Your task to perform on an android device: turn off picture-in-picture Image 0: 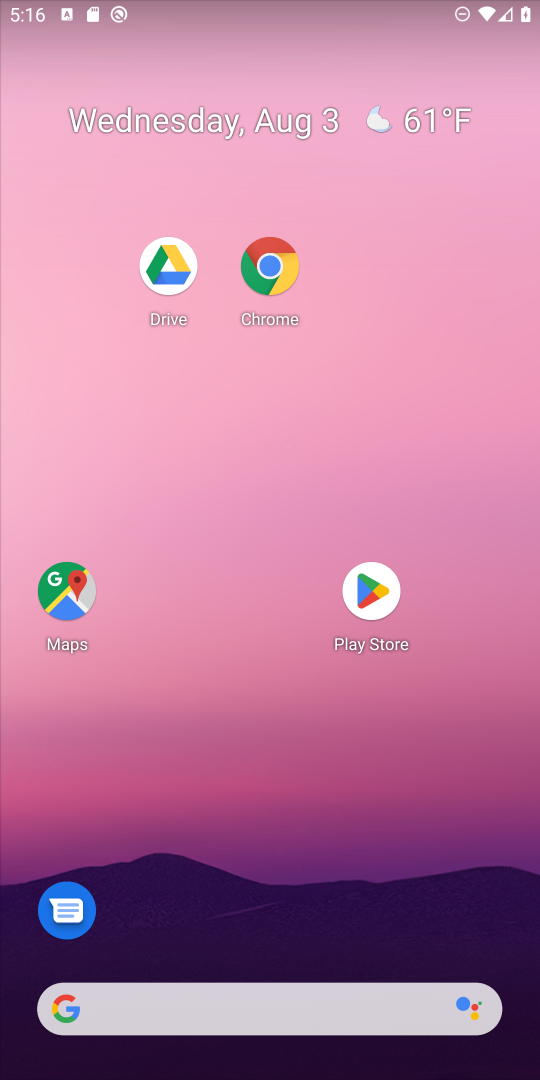
Step 0: drag from (358, 359) to (365, 66)
Your task to perform on an android device: turn off picture-in-picture Image 1: 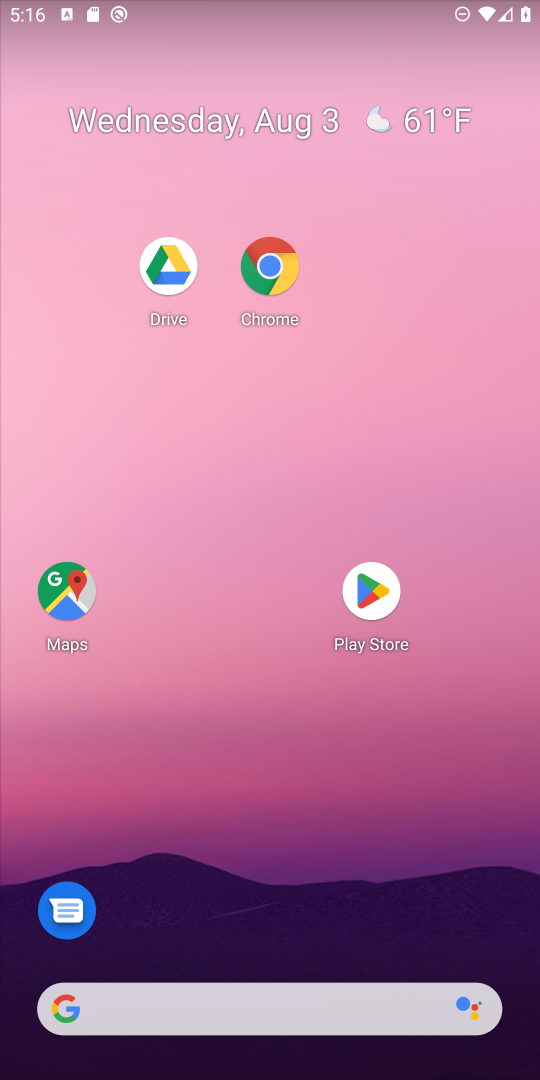
Step 1: drag from (303, 847) to (400, 11)
Your task to perform on an android device: turn off picture-in-picture Image 2: 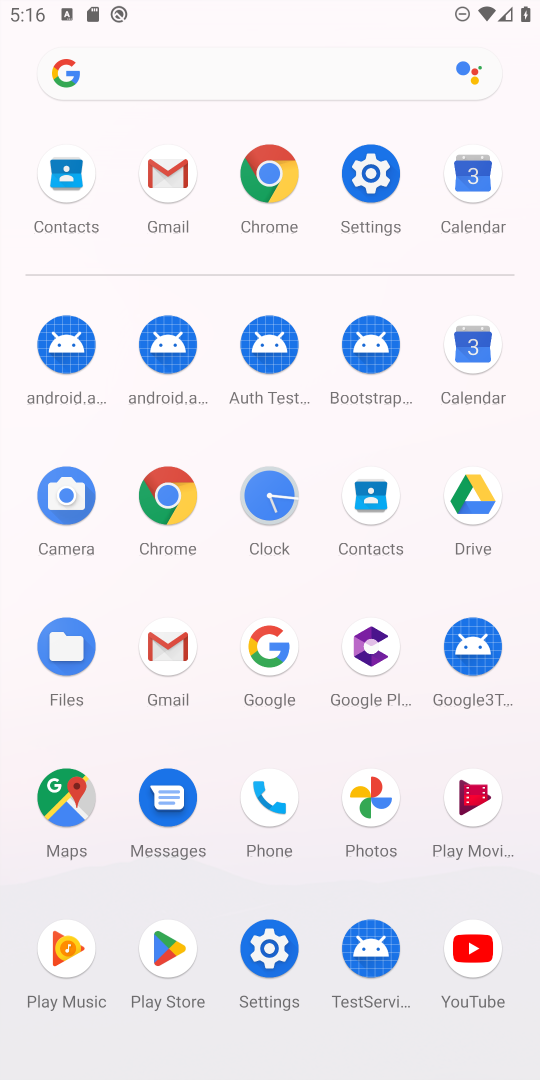
Step 2: click (358, 166)
Your task to perform on an android device: turn off picture-in-picture Image 3: 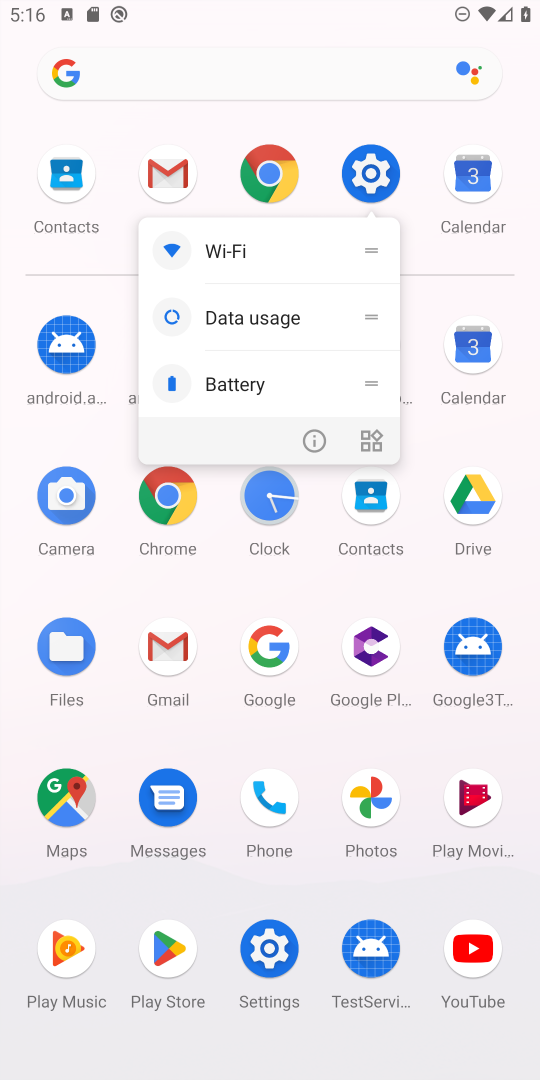
Step 3: click (400, 197)
Your task to perform on an android device: turn off picture-in-picture Image 4: 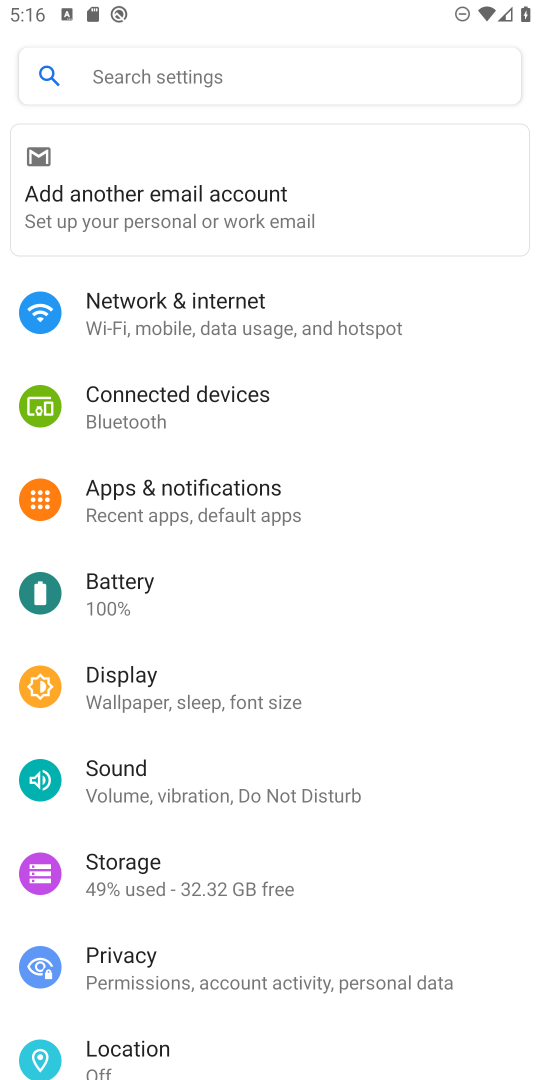
Step 4: click (176, 498)
Your task to perform on an android device: turn off picture-in-picture Image 5: 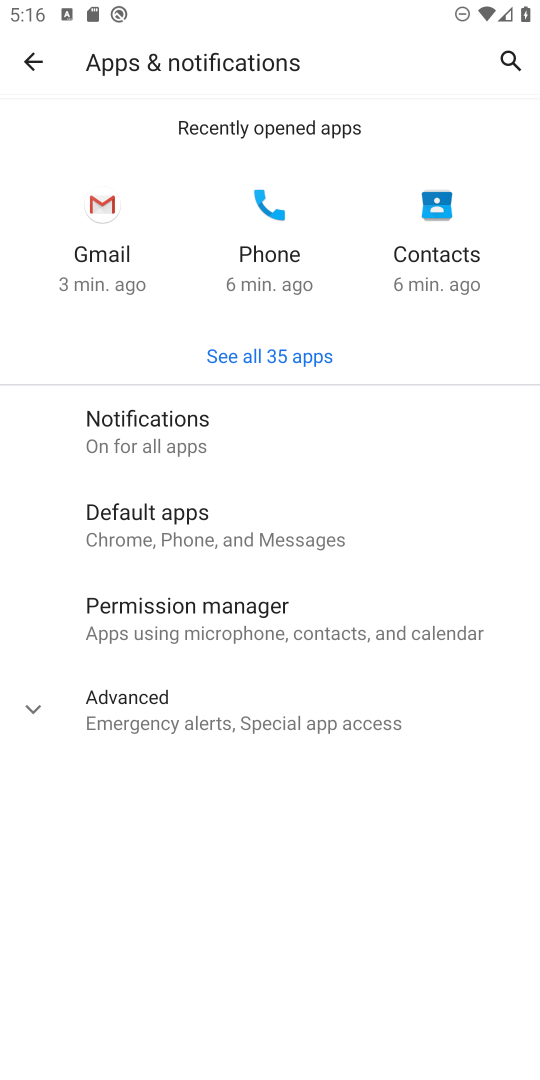
Step 5: click (214, 702)
Your task to perform on an android device: turn off picture-in-picture Image 6: 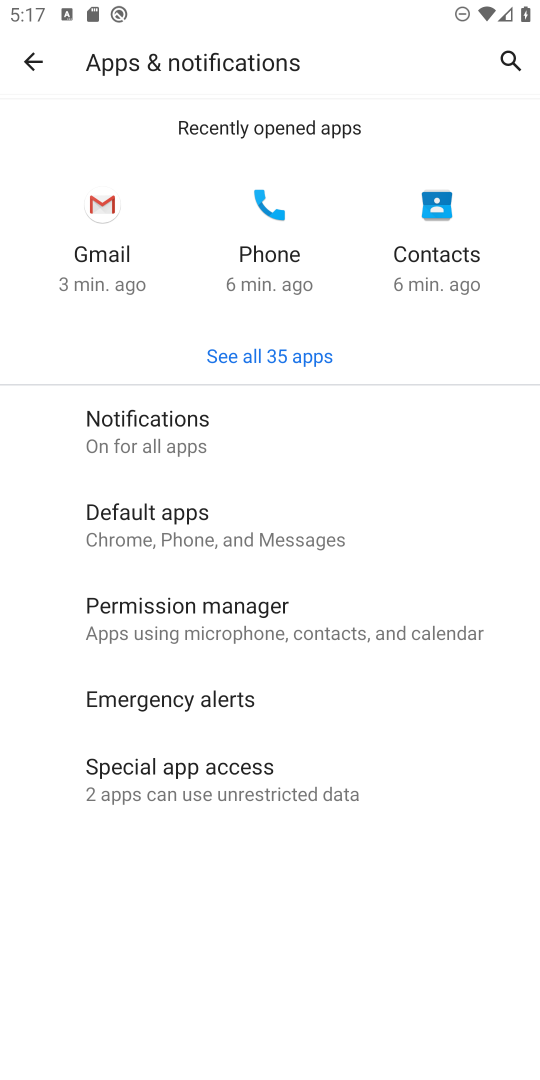
Step 6: click (168, 772)
Your task to perform on an android device: turn off picture-in-picture Image 7: 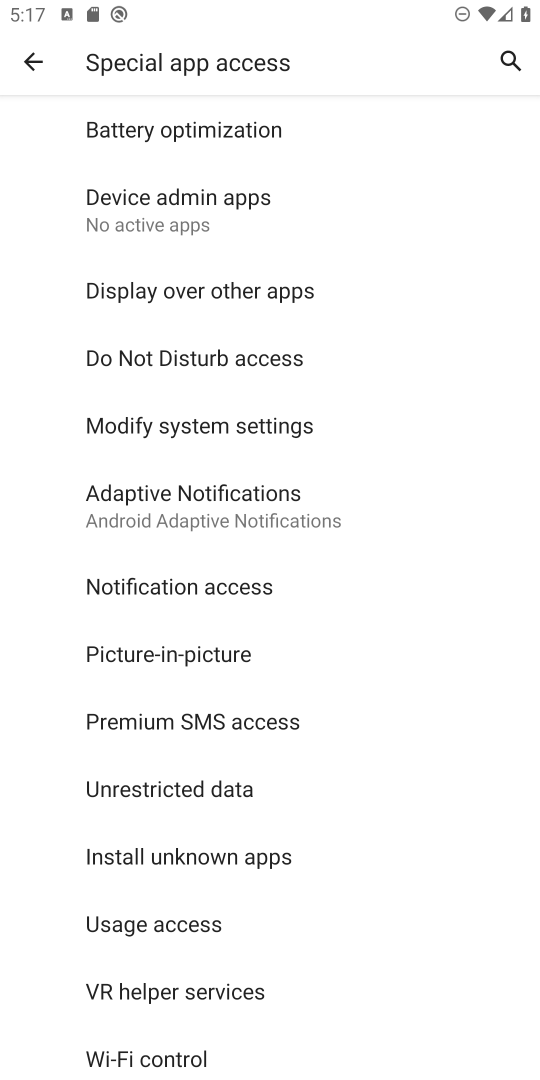
Step 7: click (192, 644)
Your task to perform on an android device: turn off picture-in-picture Image 8: 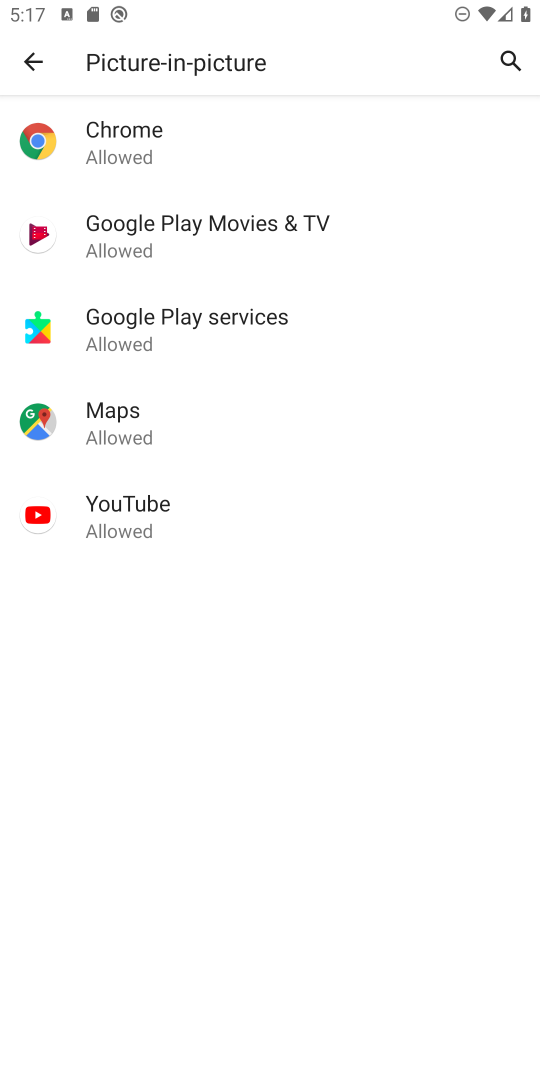
Step 8: click (176, 130)
Your task to perform on an android device: turn off picture-in-picture Image 9: 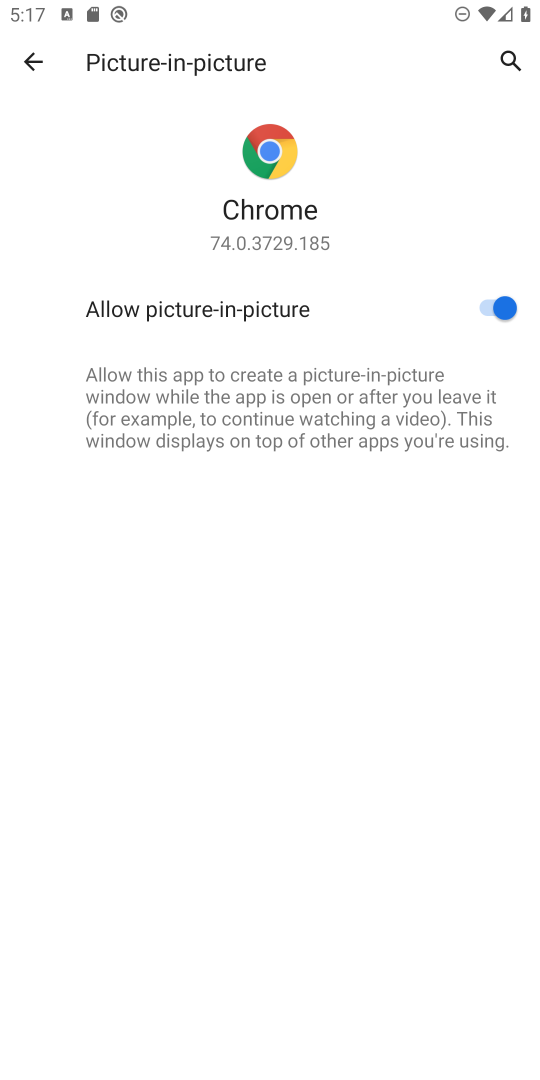
Step 9: click (495, 306)
Your task to perform on an android device: turn off picture-in-picture Image 10: 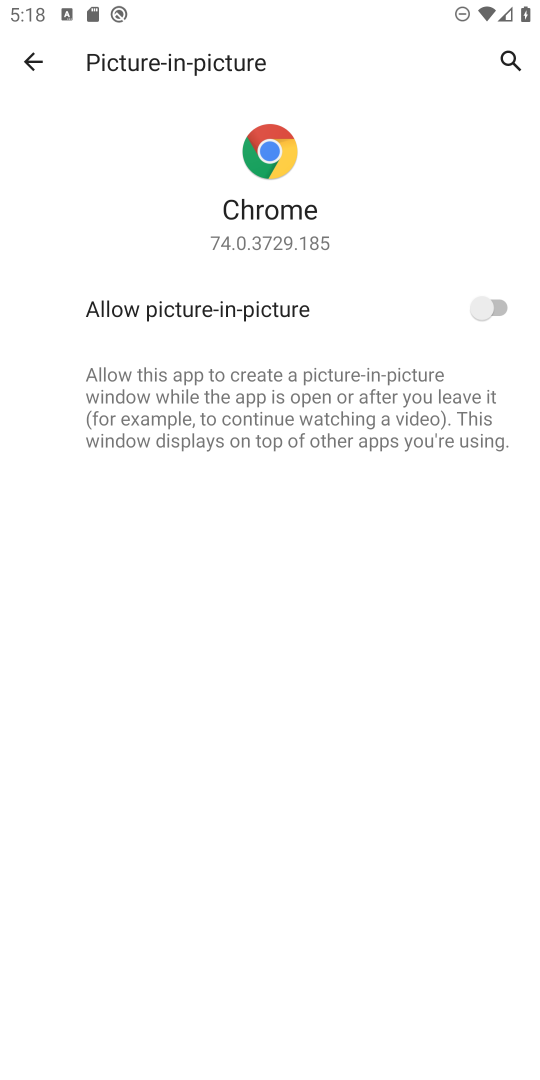
Step 10: press back button
Your task to perform on an android device: turn off picture-in-picture Image 11: 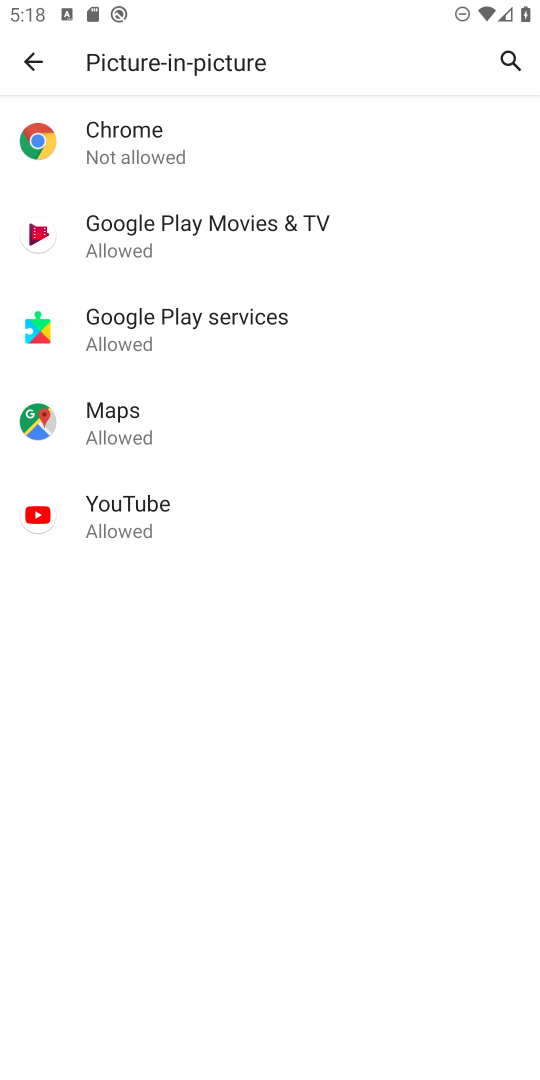
Step 11: click (273, 232)
Your task to perform on an android device: turn off picture-in-picture Image 12: 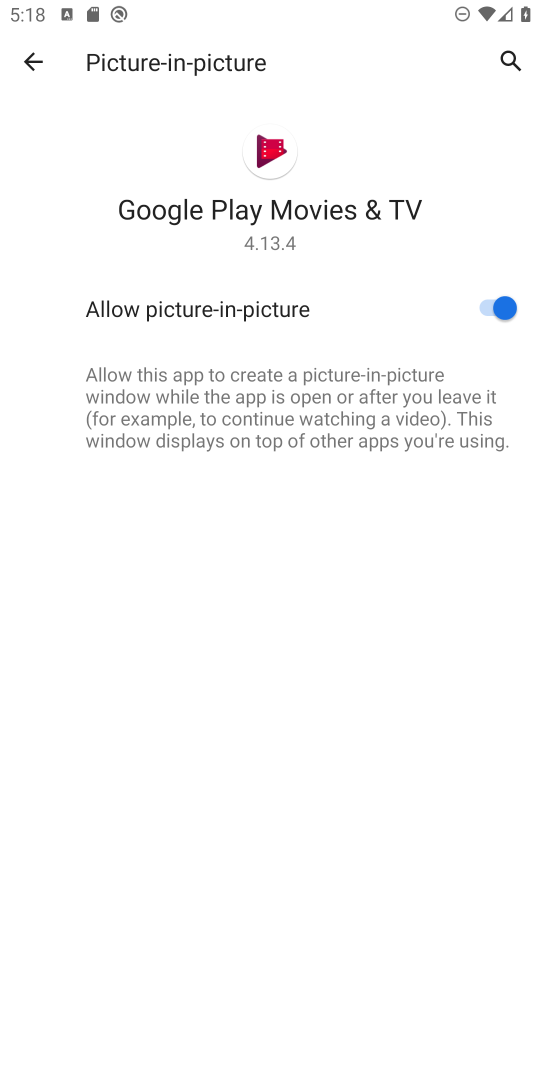
Step 12: click (499, 310)
Your task to perform on an android device: turn off picture-in-picture Image 13: 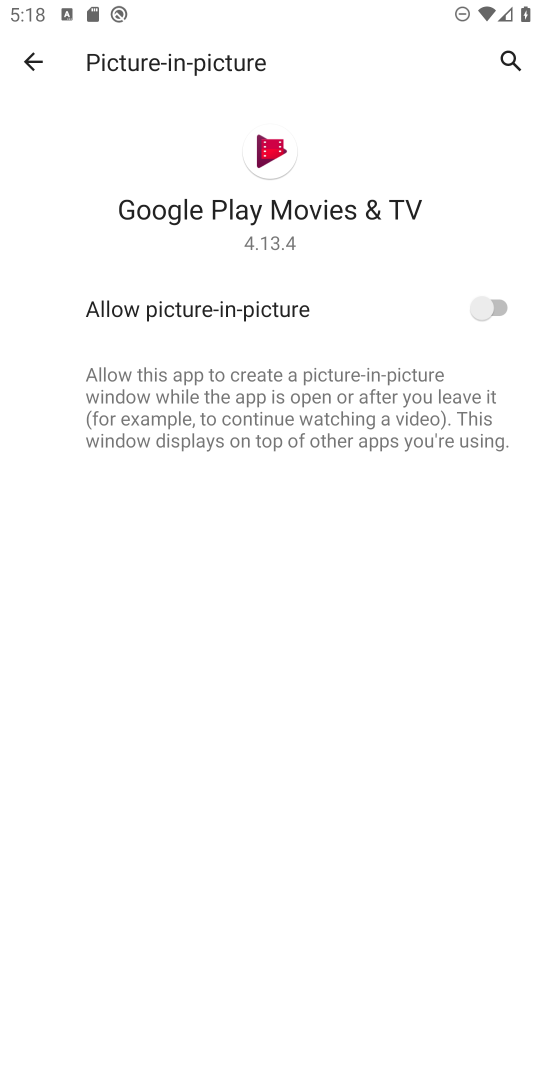
Step 13: press back button
Your task to perform on an android device: turn off picture-in-picture Image 14: 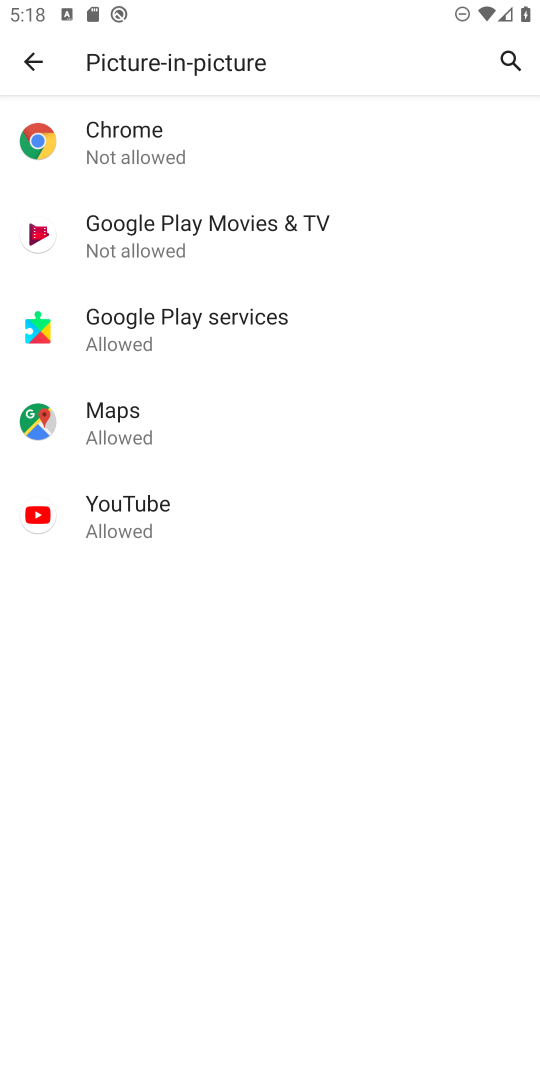
Step 14: click (229, 343)
Your task to perform on an android device: turn off picture-in-picture Image 15: 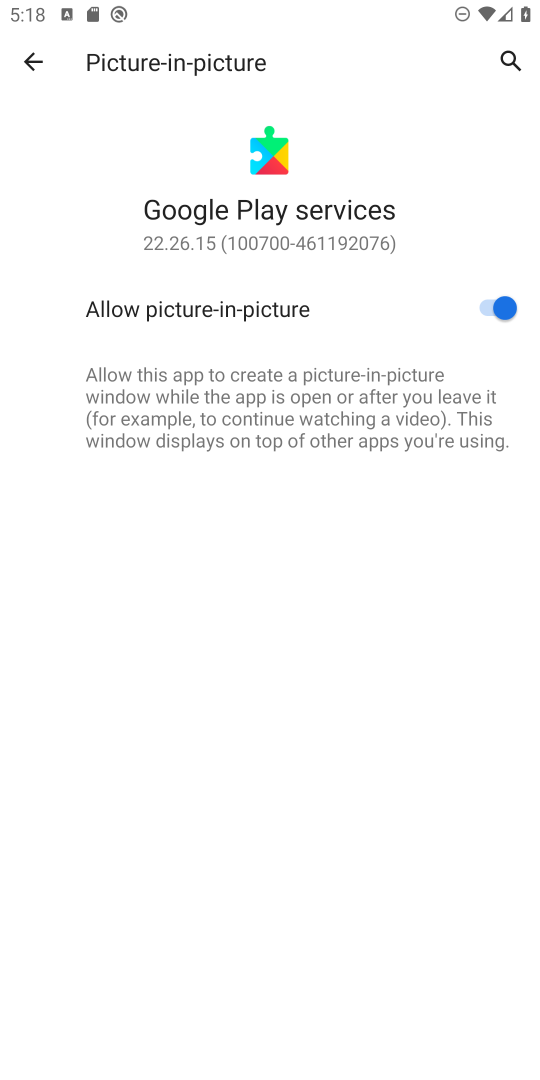
Step 15: click (499, 308)
Your task to perform on an android device: turn off picture-in-picture Image 16: 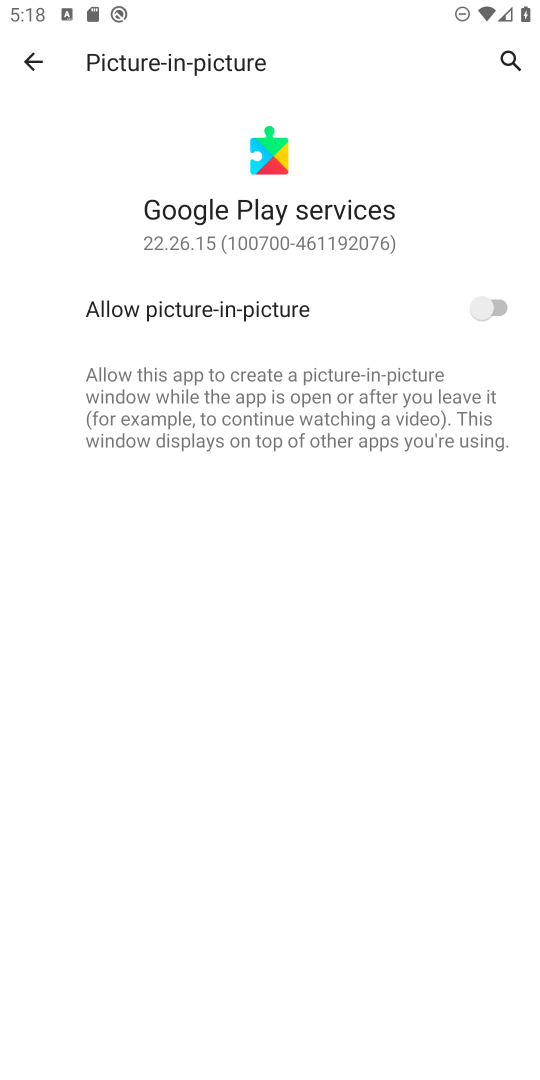
Step 16: press back button
Your task to perform on an android device: turn off picture-in-picture Image 17: 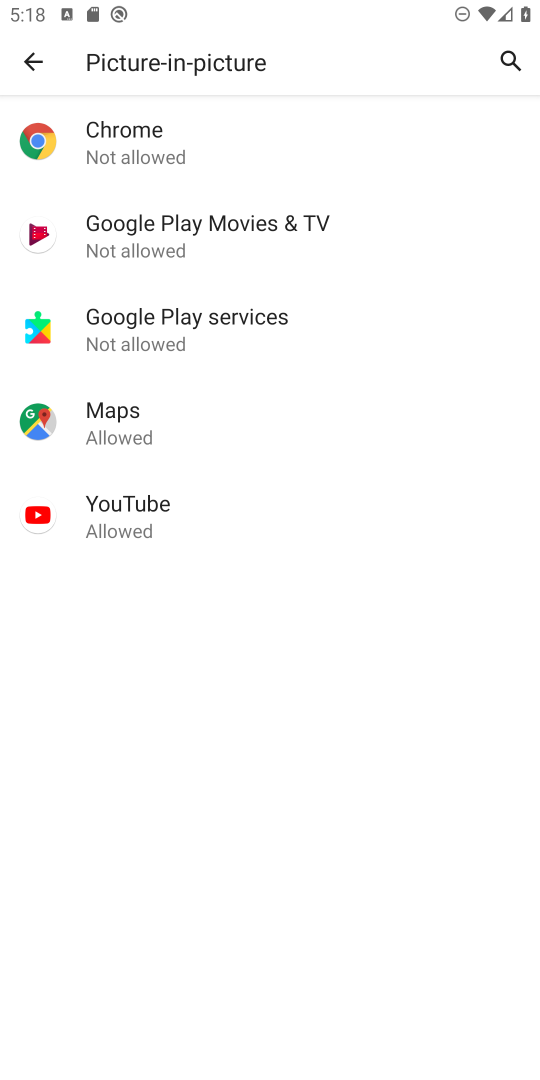
Step 17: click (210, 437)
Your task to perform on an android device: turn off picture-in-picture Image 18: 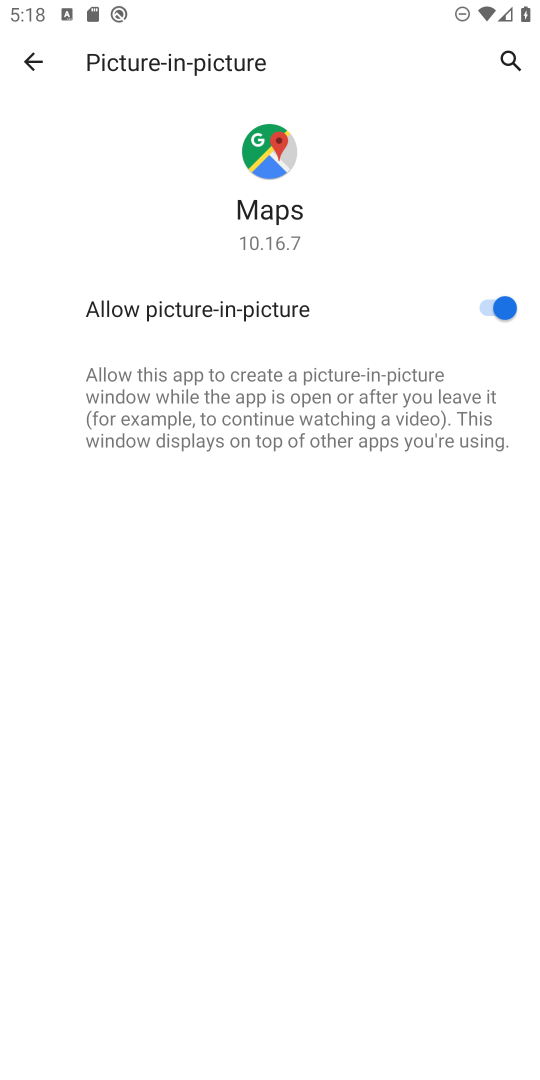
Step 18: click (497, 303)
Your task to perform on an android device: turn off picture-in-picture Image 19: 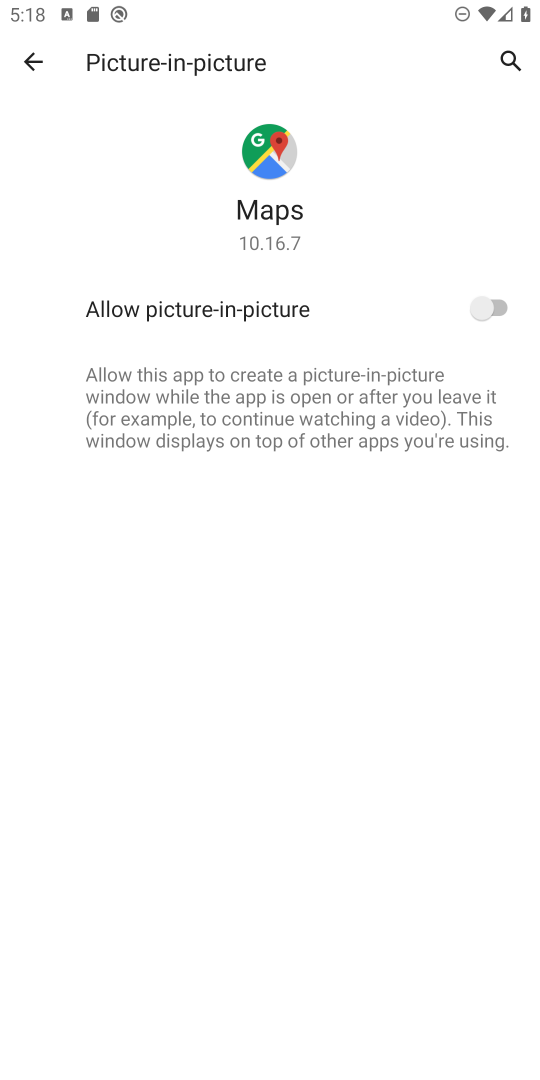
Step 19: press back button
Your task to perform on an android device: turn off picture-in-picture Image 20: 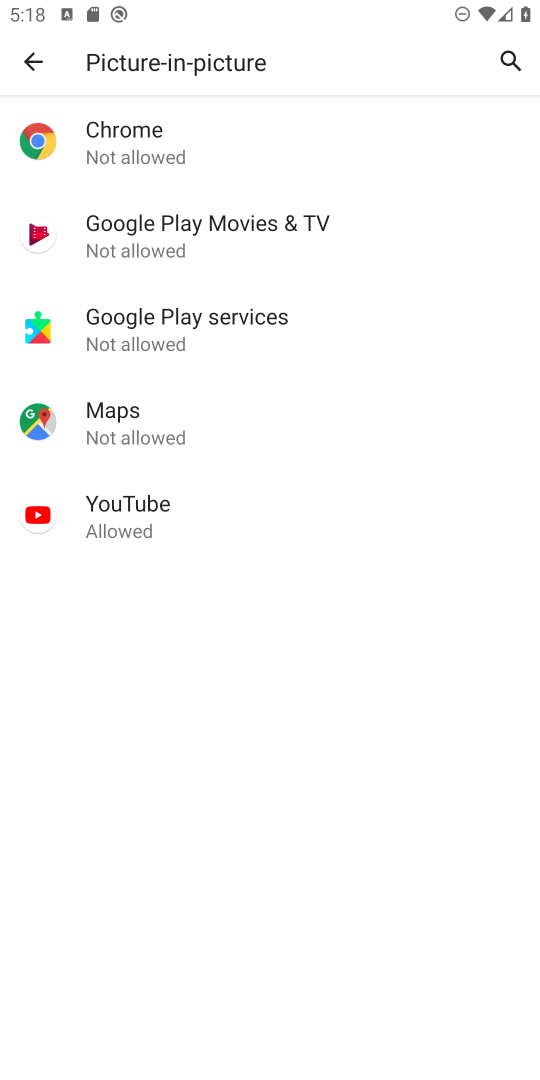
Step 20: click (204, 527)
Your task to perform on an android device: turn off picture-in-picture Image 21: 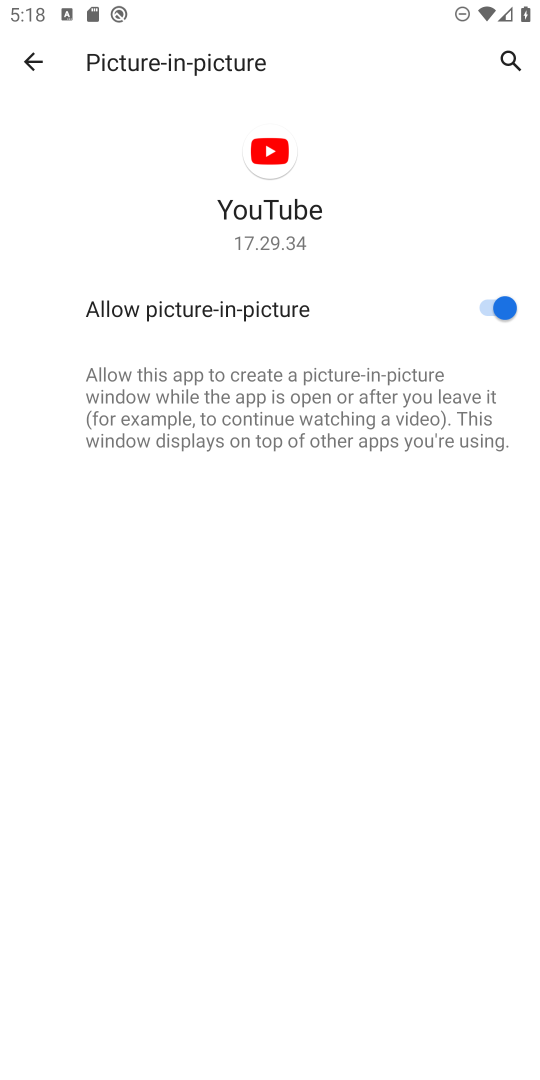
Step 21: click (495, 301)
Your task to perform on an android device: turn off picture-in-picture Image 22: 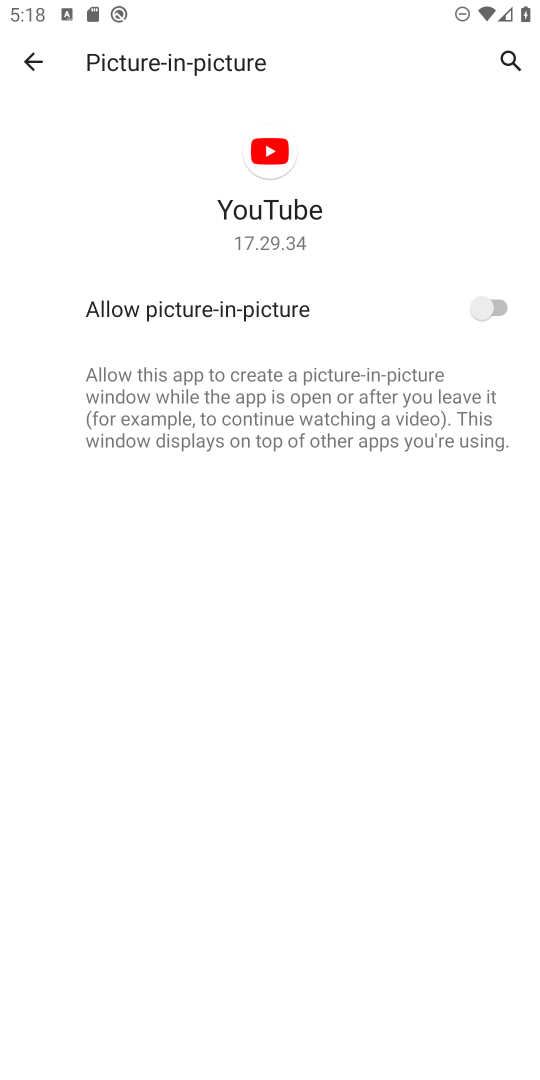
Step 22: task complete